Your task to perform on an android device: Go to notification settings Image 0: 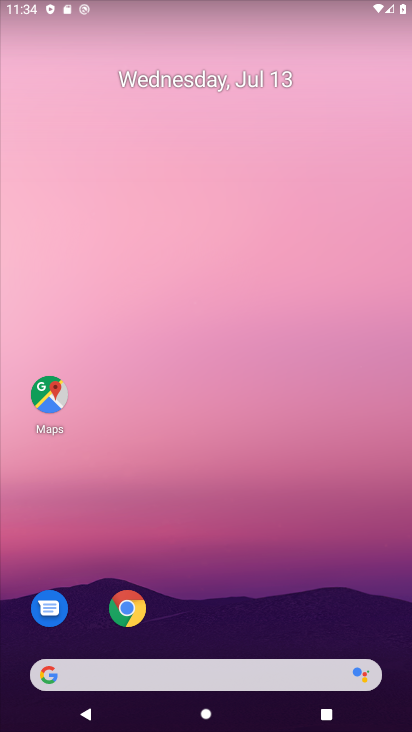
Step 0: drag from (143, 706) to (230, 4)
Your task to perform on an android device: Go to notification settings Image 1: 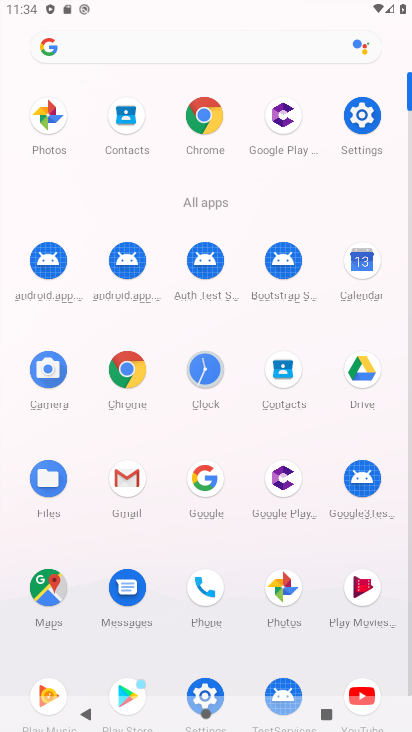
Step 1: click (351, 118)
Your task to perform on an android device: Go to notification settings Image 2: 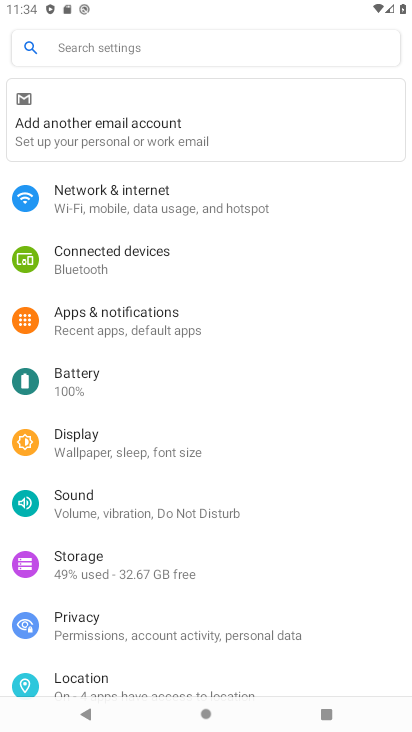
Step 2: click (108, 318)
Your task to perform on an android device: Go to notification settings Image 3: 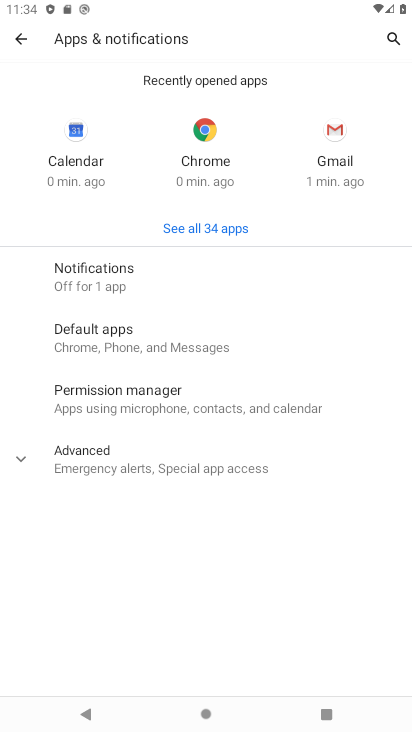
Step 3: task complete